Your task to perform on an android device: What's the weather going to be tomorrow? Image 0: 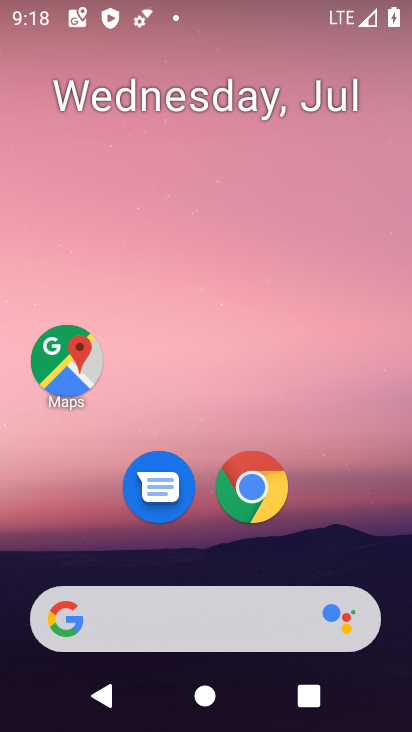
Step 0: click (190, 612)
Your task to perform on an android device: What's the weather going to be tomorrow? Image 1: 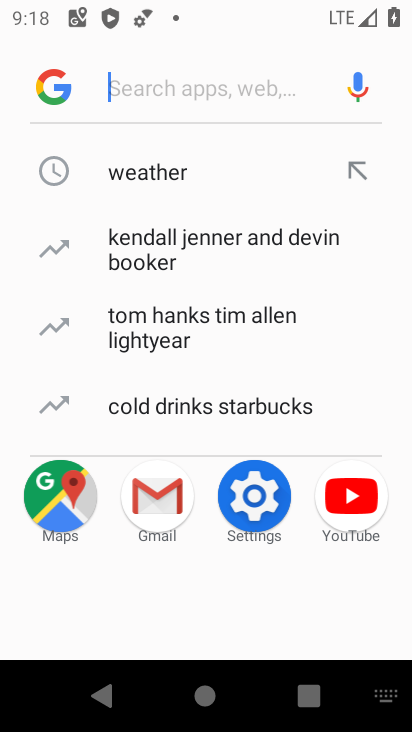
Step 1: click (144, 180)
Your task to perform on an android device: What's the weather going to be tomorrow? Image 2: 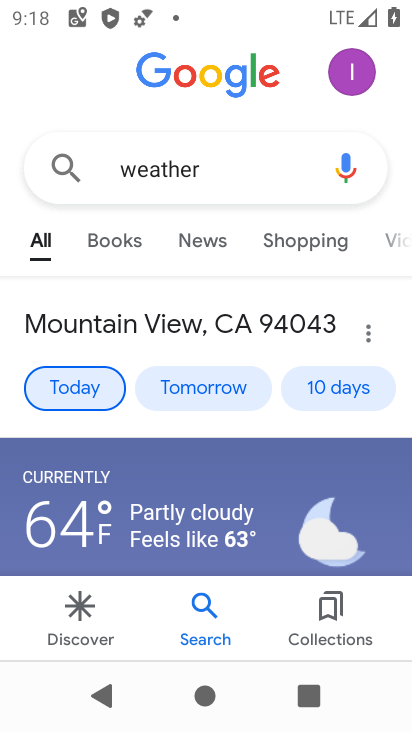
Step 2: click (203, 397)
Your task to perform on an android device: What's the weather going to be tomorrow? Image 3: 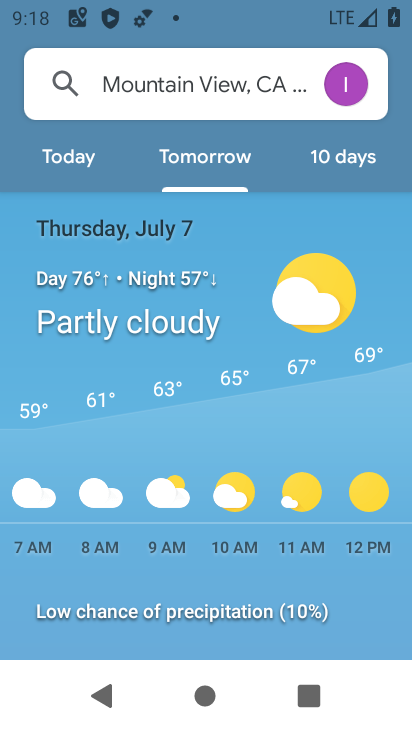
Step 3: task complete